Your task to perform on an android device: Go to settings Image 0: 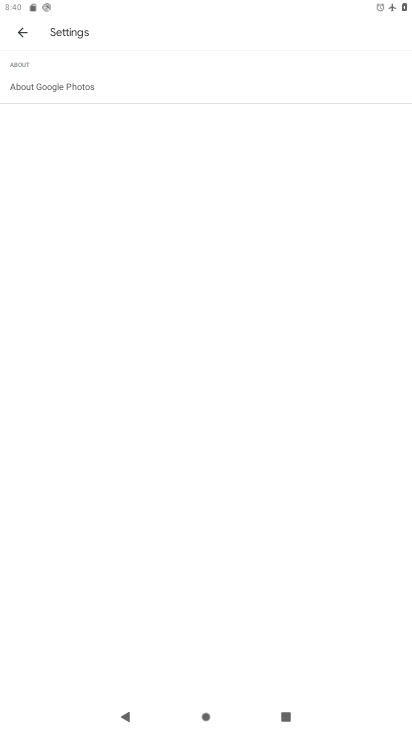
Step 0: press home button
Your task to perform on an android device: Go to settings Image 1: 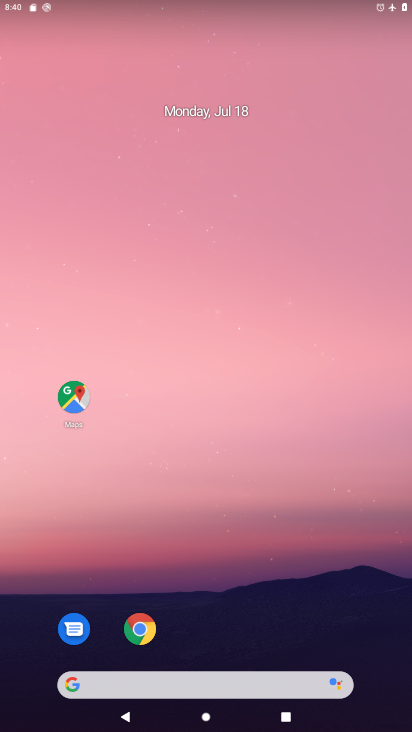
Step 1: drag from (203, 589) to (191, 255)
Your task to perform on an android device: Go to settings Image 2: 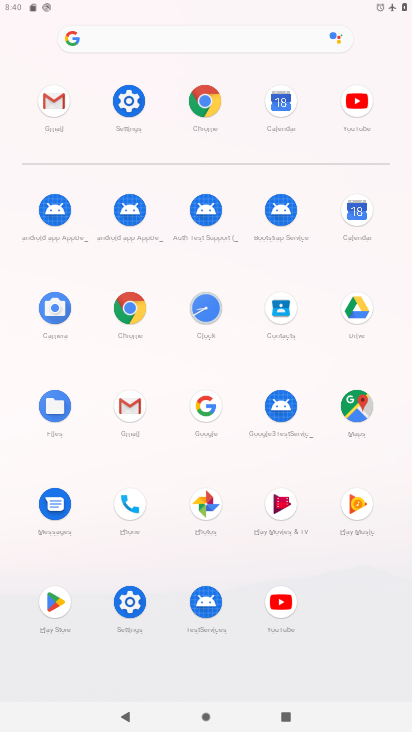
Step 2: click (127, 604)
Your task to perform on an android device: Go to settings Image 3: 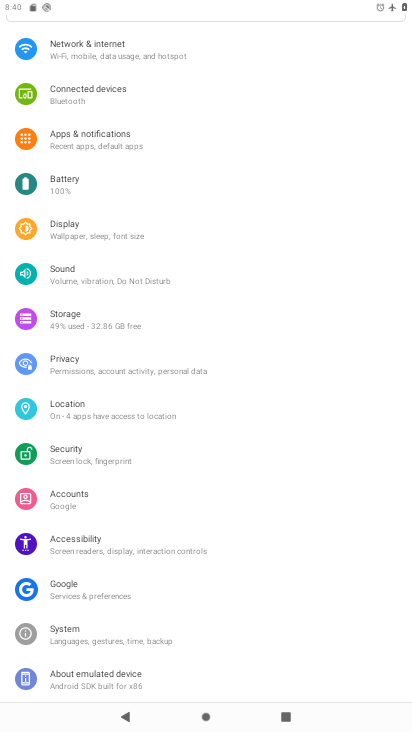
Step 3: task complete